Your task to perform on an android device: Go to Google maps Image 0: 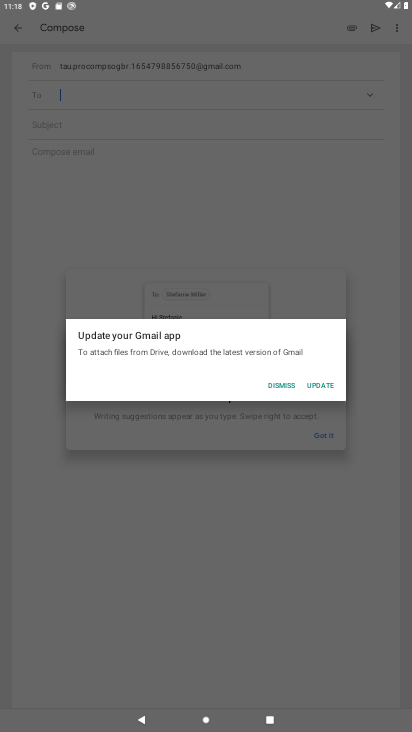
Step 0: press home button
Your task to perform on an android device: Go to Google maps Image 1: 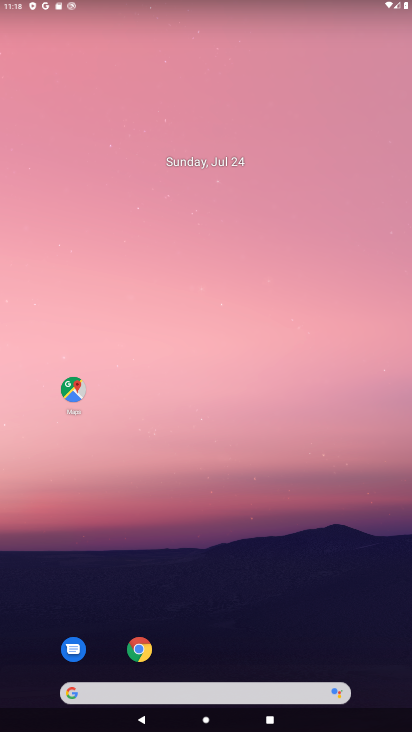
Step 1: click (71, 386)
Your task to perform on an android device: Go to Google maps Image 2: 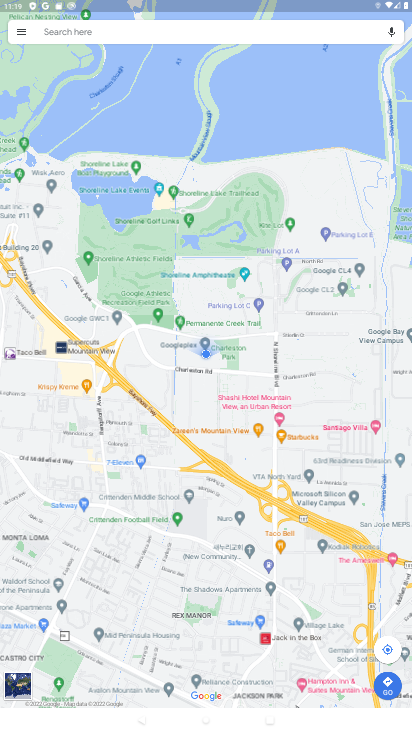
Step 2: task complete